Your task to perform on an android device: open app "DoorDash - Dasher" (install if not already installed), go to login, and select forgot password Image 0: 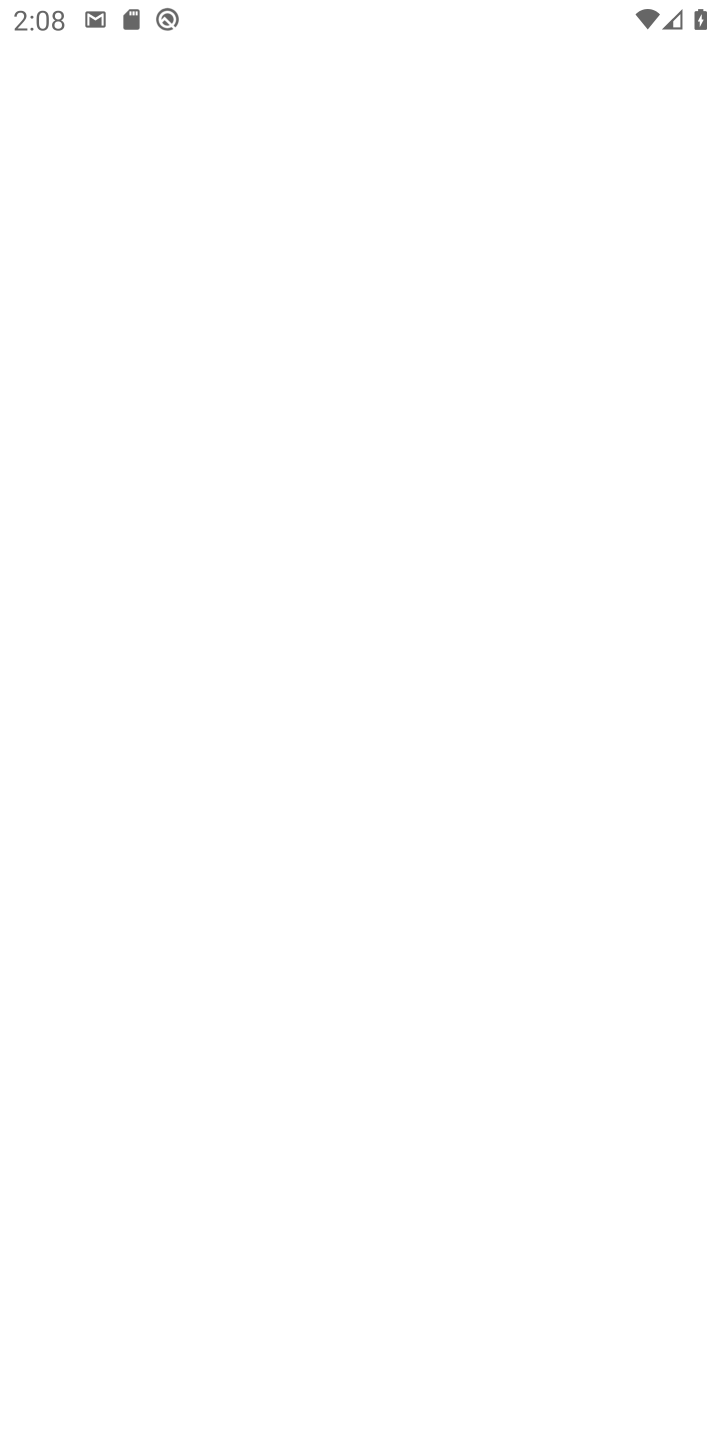
Step 0: press home button
Your task to perform on an android device: open app "DoorDash - Dasher" (install if not already installed), go to login, and select forgot password Image 1: 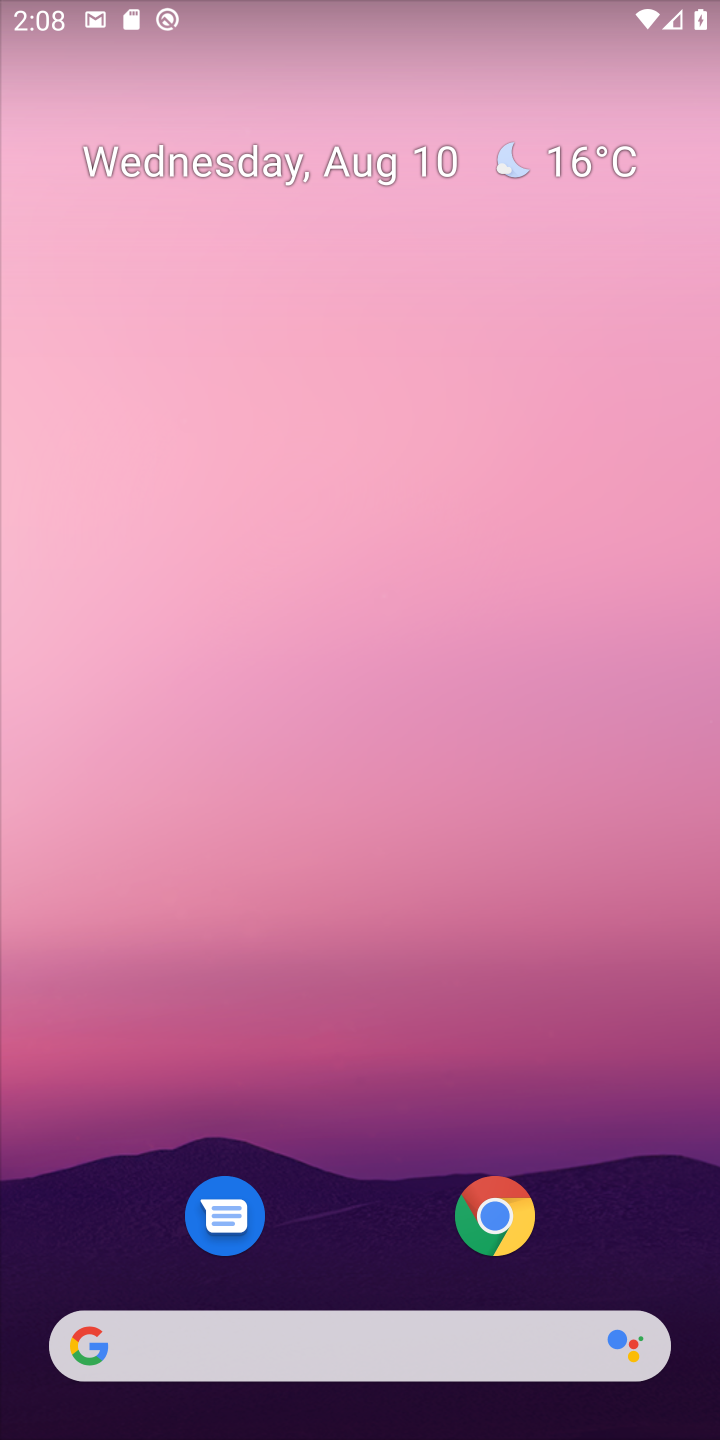
Step 1: drag from (363, 1289) to (386, 45)
Your task to perform on an android device: open app "DoorDash - Dasher" (install if not already installed), go to login, and select forgot password Image 2: 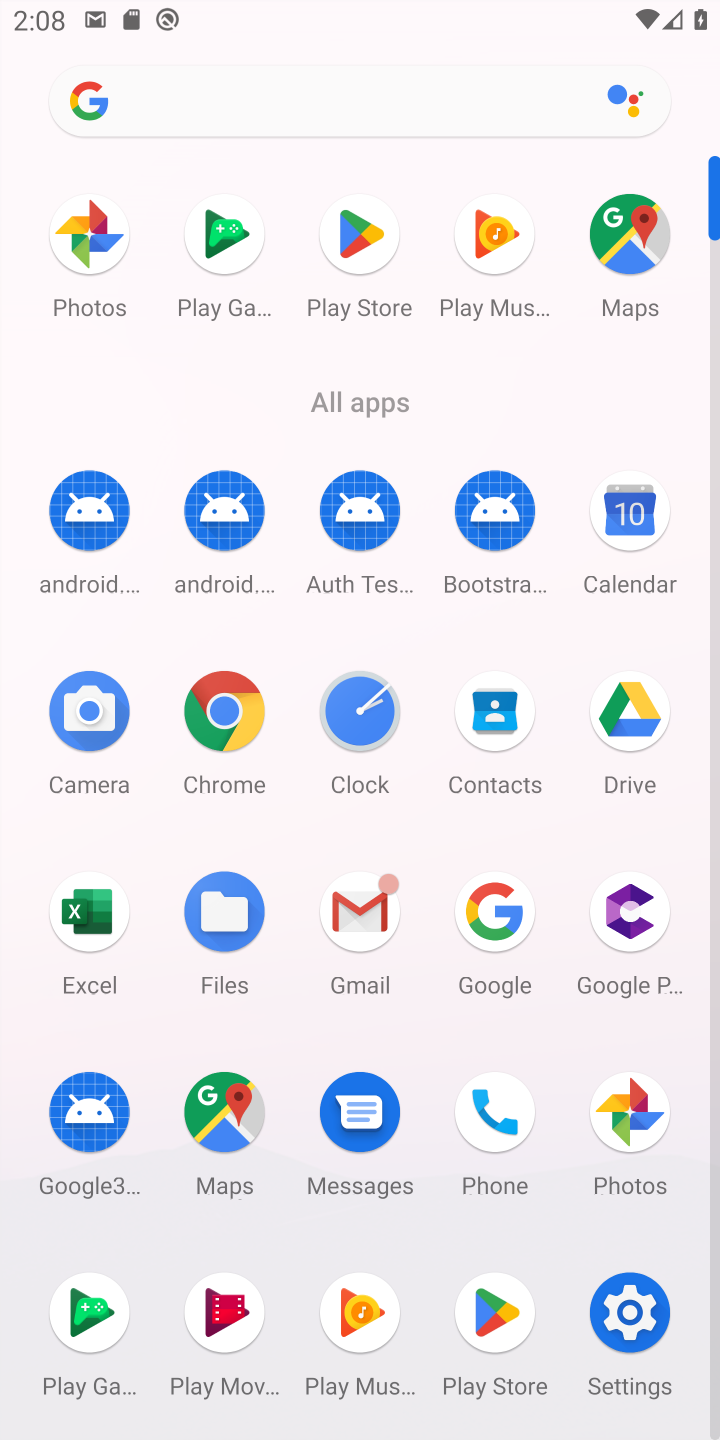
Step 2: click (473, 1329)
Your task to perform on an android device: open app "DoorDash - Dasher" (install if not already installed), go to login, and select forgot password Image 3: 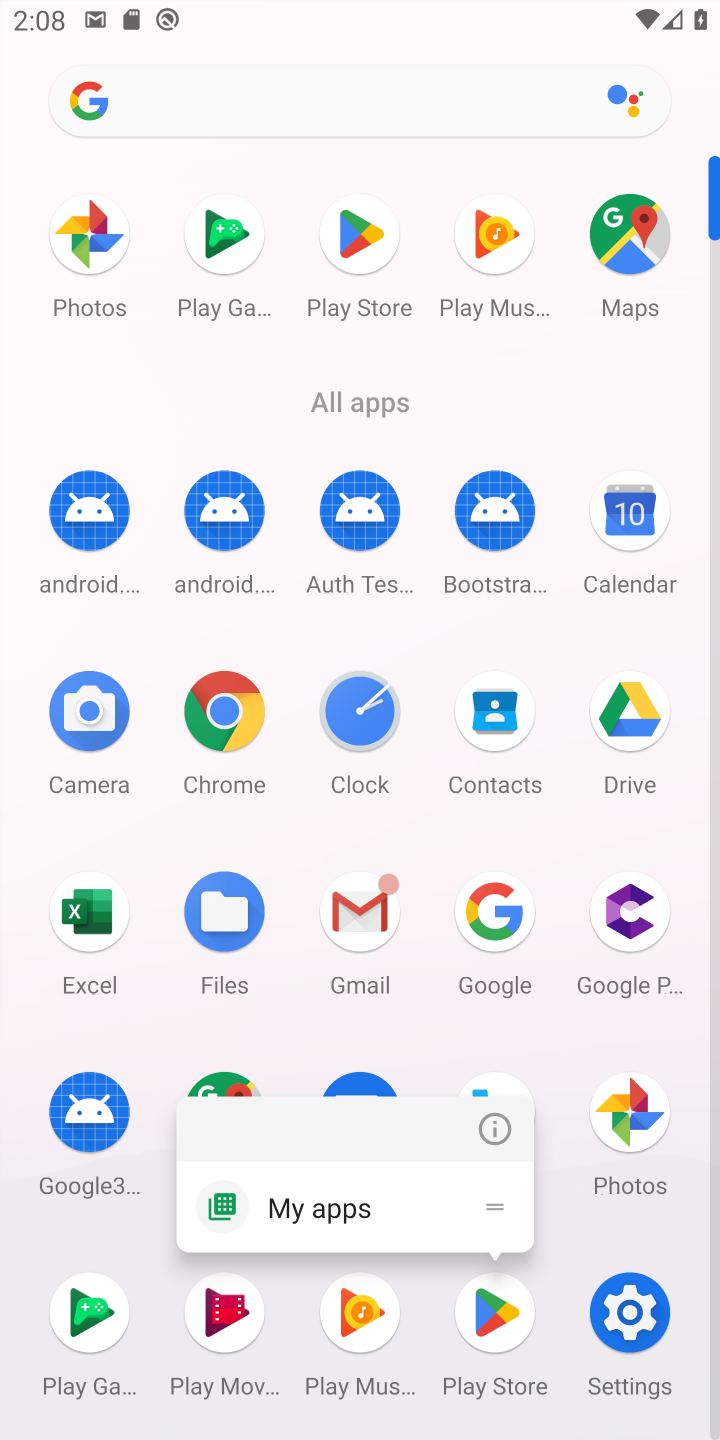
Step 3: click (508, 1348)
Your task to perform on an android device: open app "DoorDash - Dasher" (install if not already installed), go to login, and select forgot password Image 4: 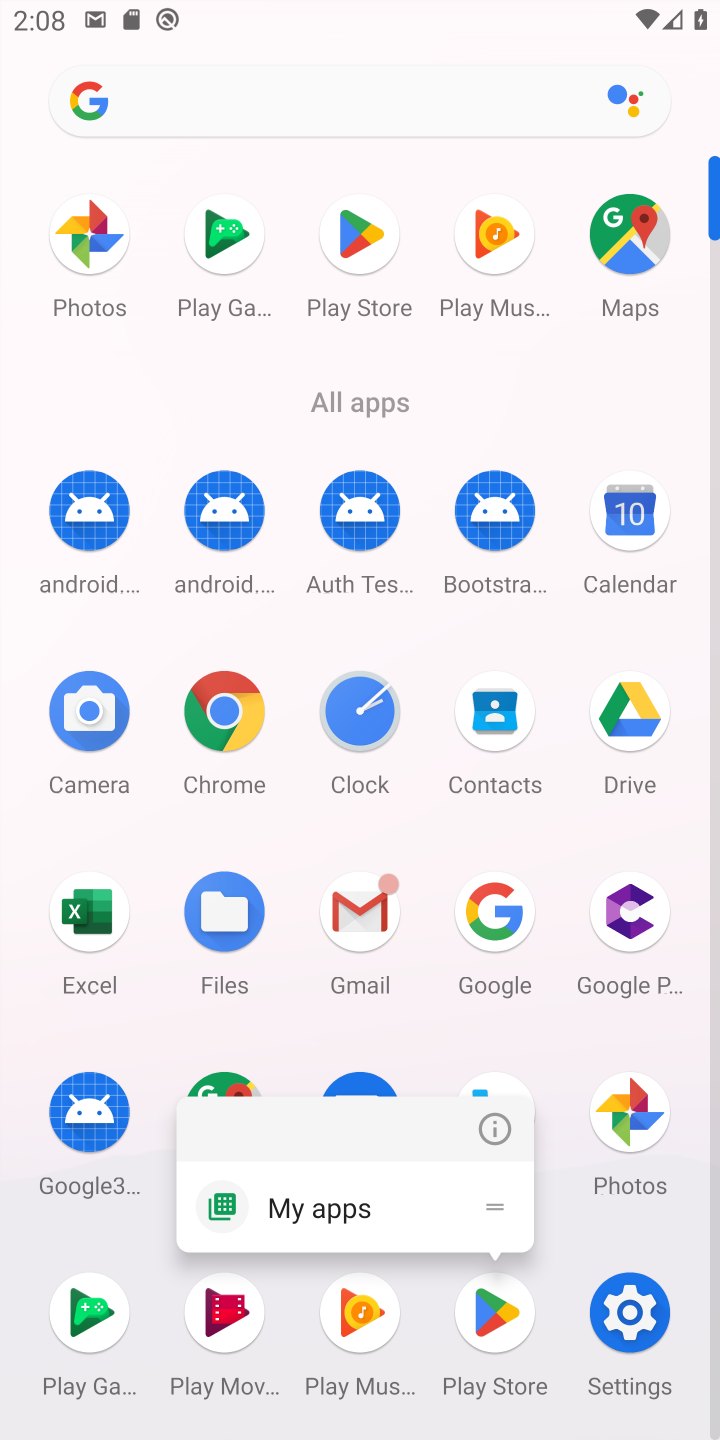
Step 4: click (446, 1321)
Your task to perform on an android device: open app "DoorDash - Dasher" (install if not already installed), go to login, and select forgot password Image 5: 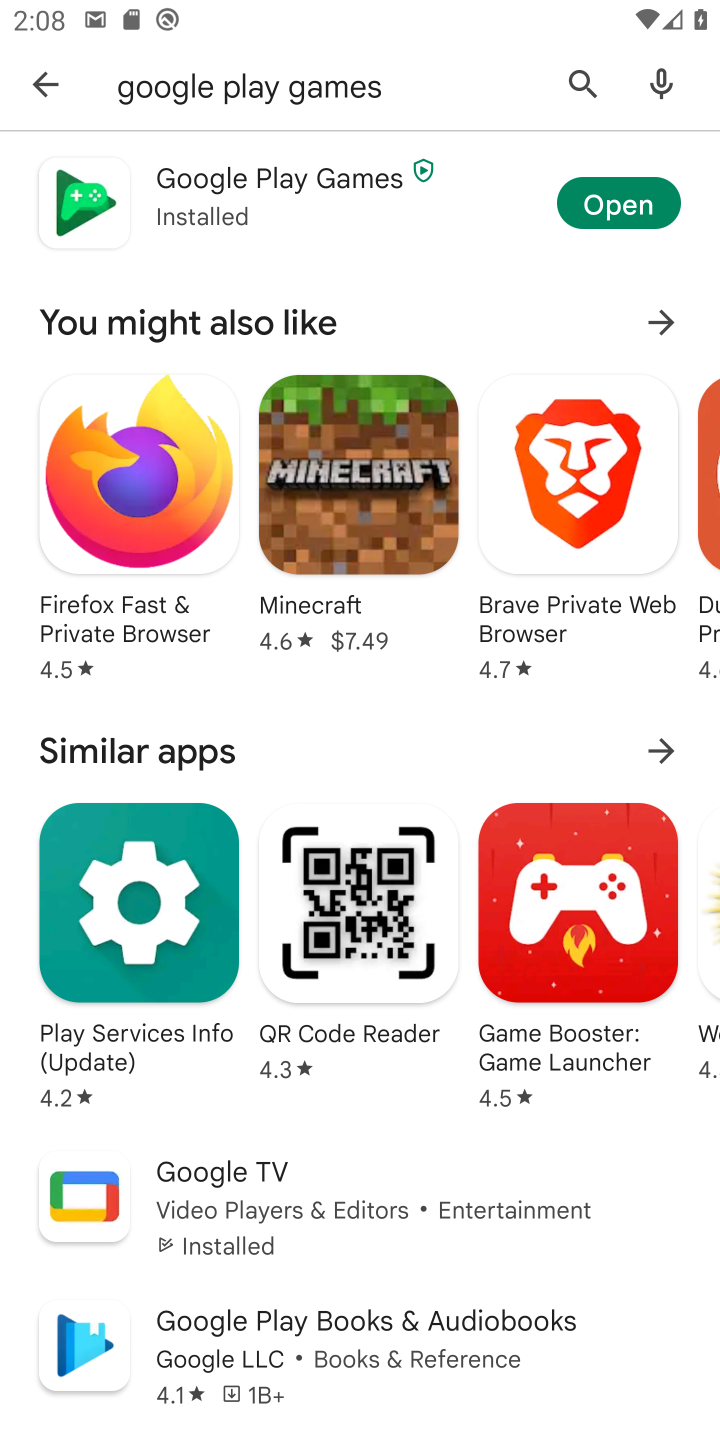
Step 5: click (36, 93)
Your task to perform on an android device: open app "DoorDash - Dasher" (install if not already installed), go to login, and select forgot password Image 6: 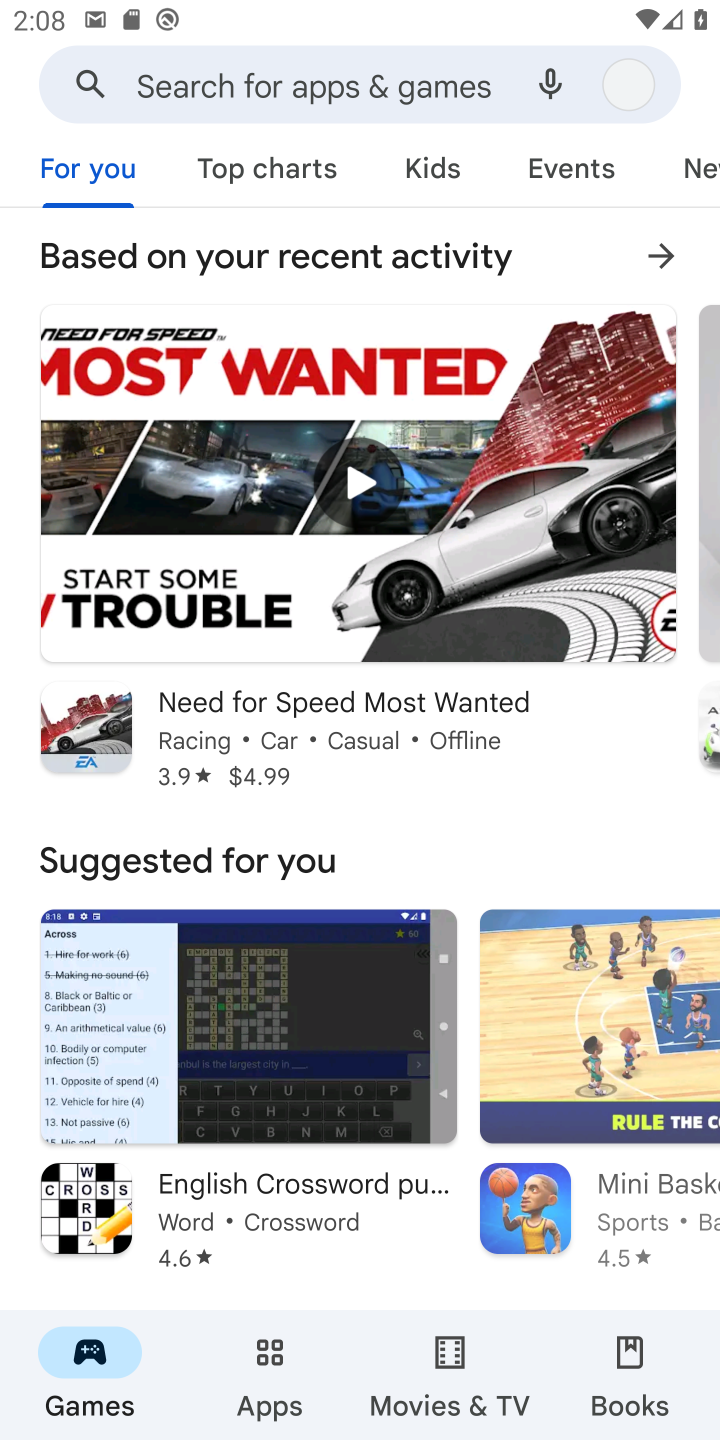
Step 6: click (267, 84)
Your task to perform on an android device: open app "DoorDash - Dasher" (install if not already installed), go to login, and select forgot password Image 7: 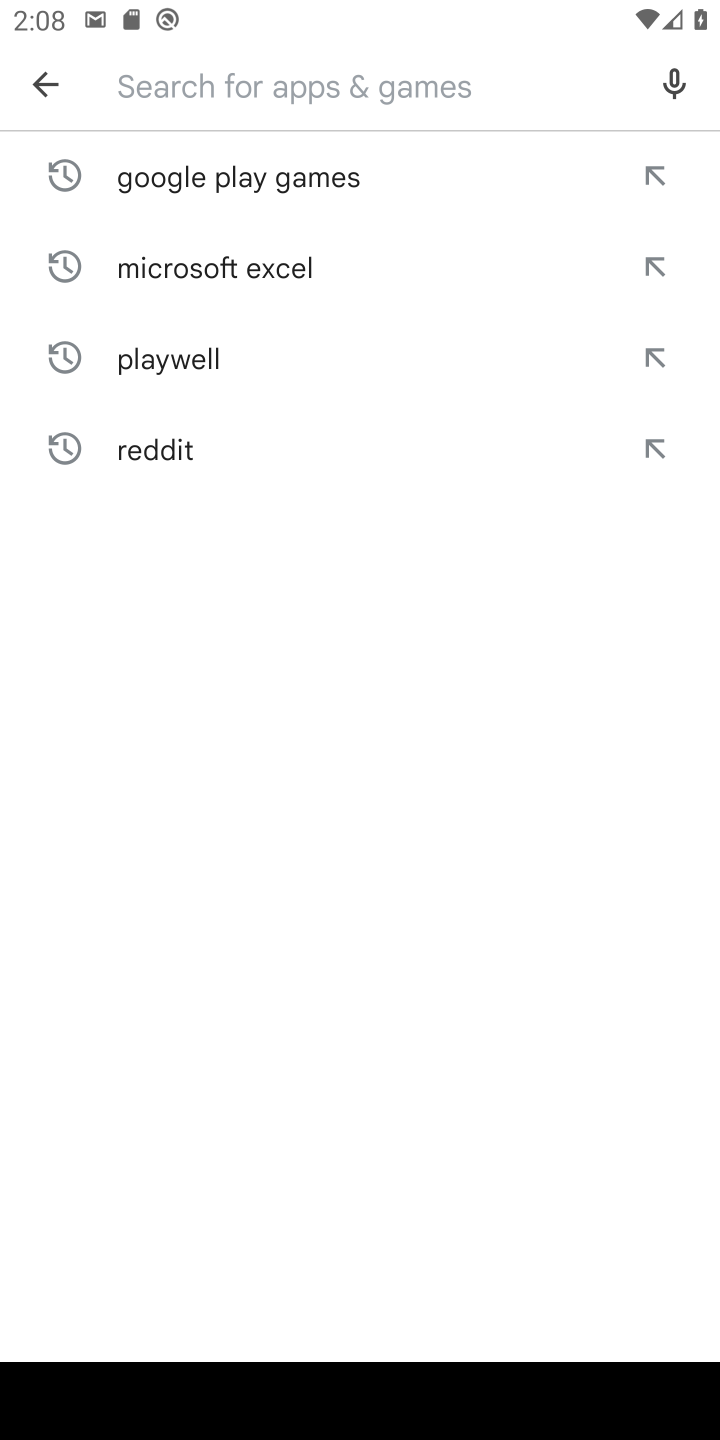
Step 7: drag from (396, 1413) to (578, 1365)
Your task to perform on an android device: open app "DoorDash - Dasher" (install if not already installed), go to login, and select forgot password Image 8: 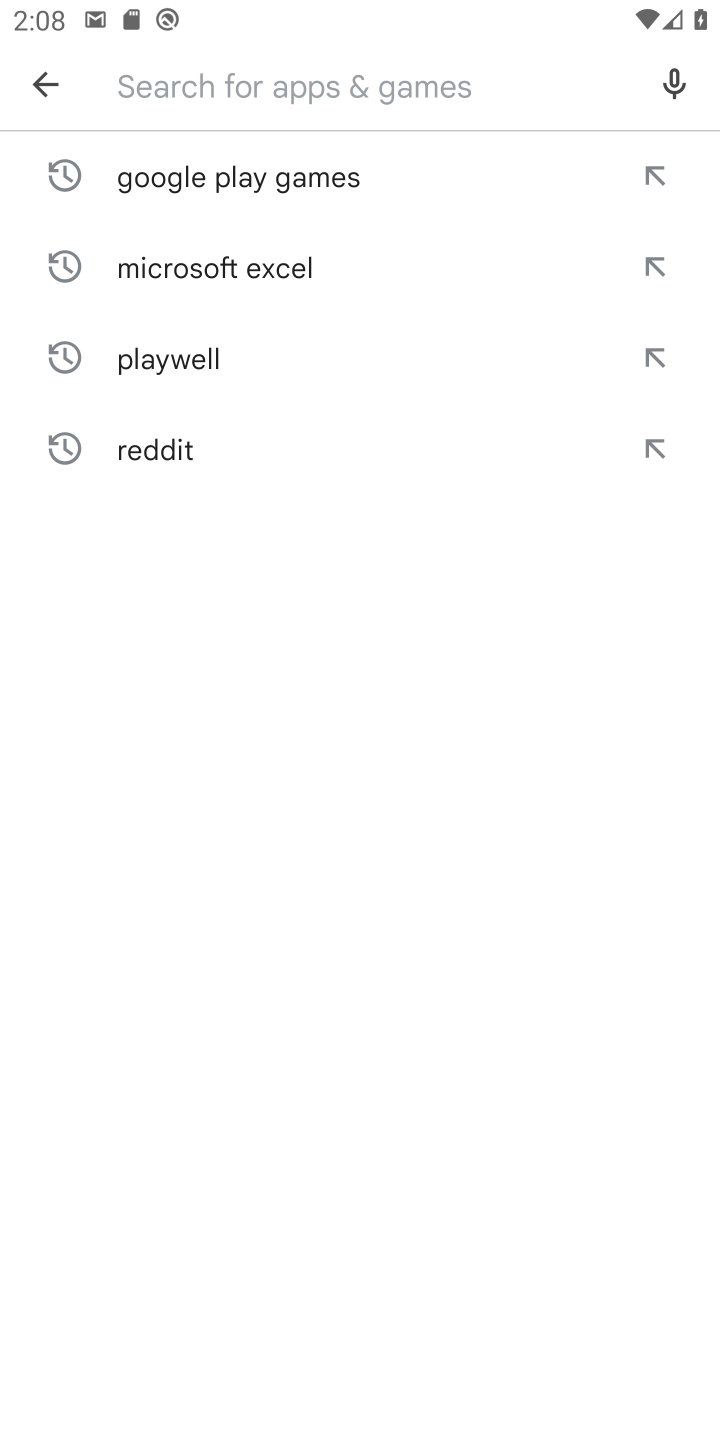
Step 8: type "DoorDash - Dashe"
Your task to perform on an android device: open app "DoorDash - Dasher" (install if not already installed), go to login, and select forgot password Image 9: 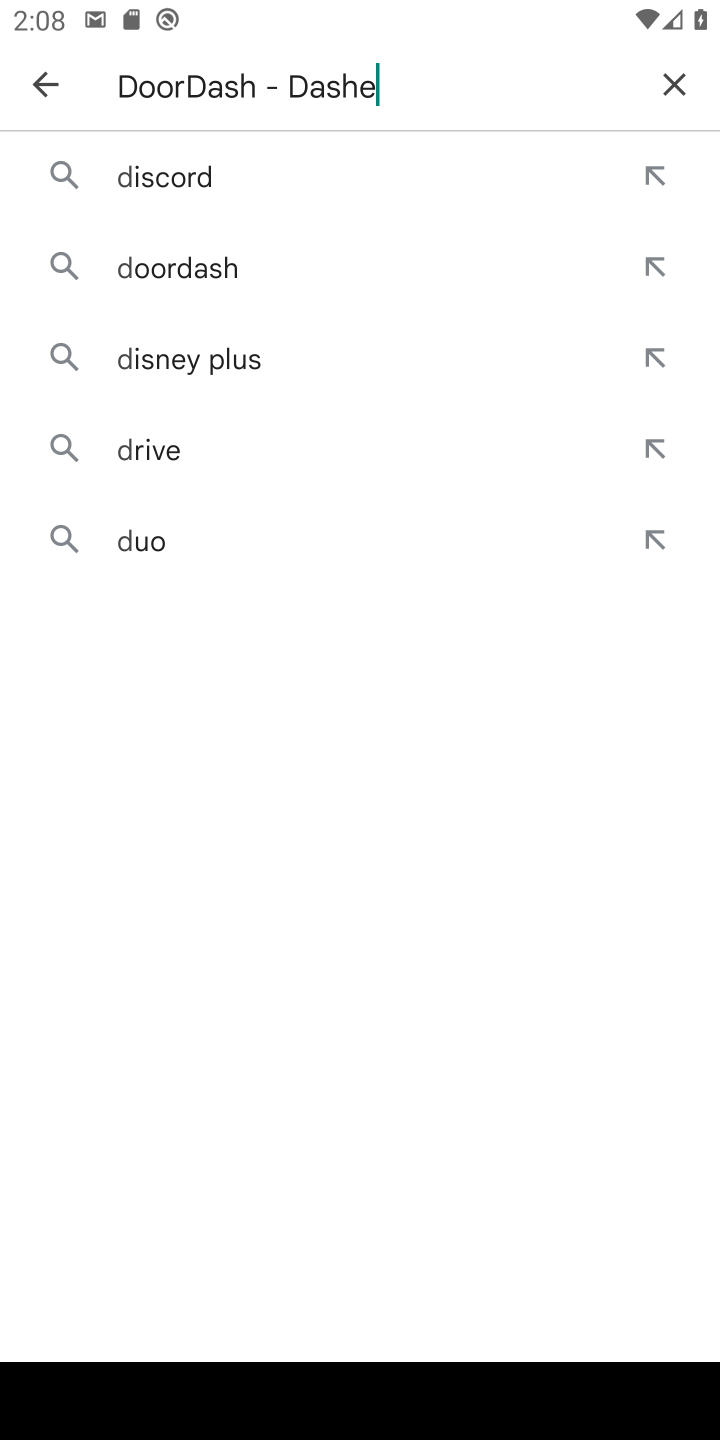
Step 9: type ""
Your task to perform on an android device: open app "DoorDash - Dasher" (install if not already installed), go to login, and select forgot password Image 10: 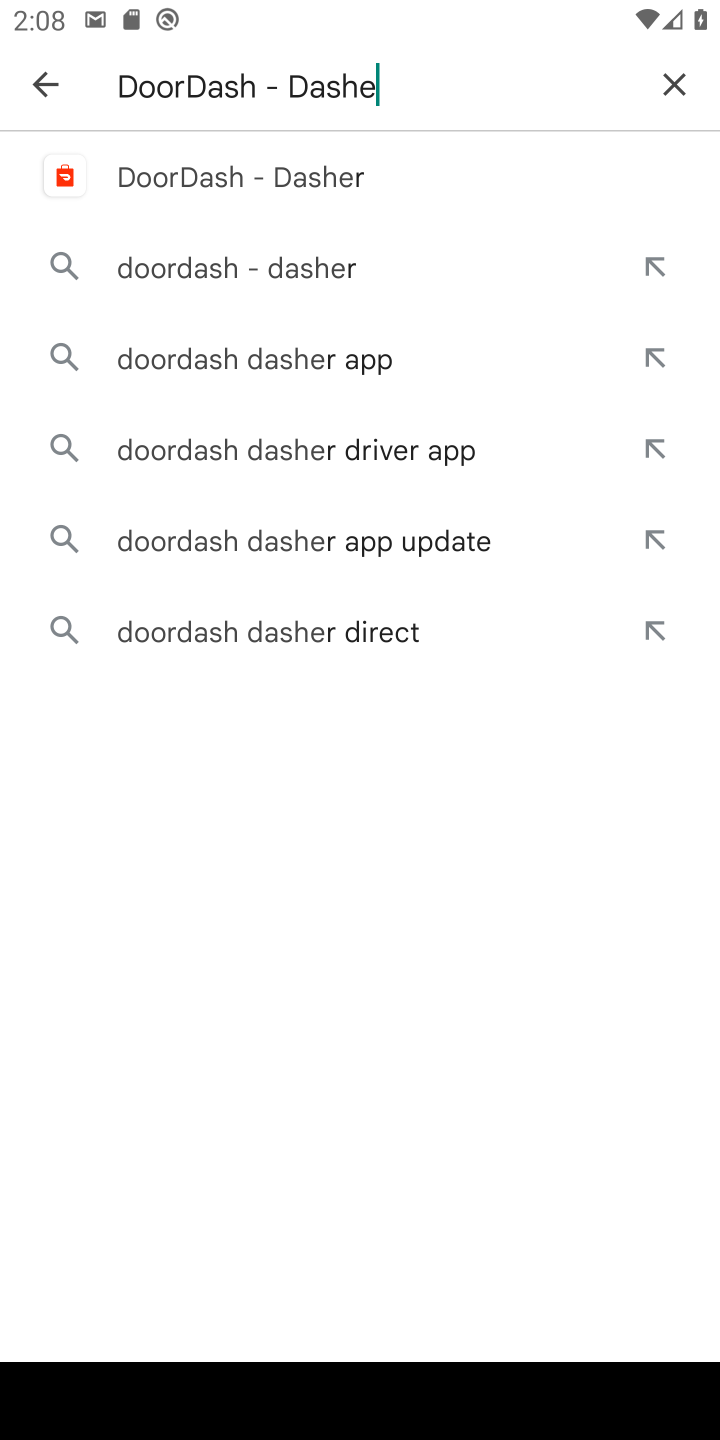
Step 10: drag from (154, 91) to (156, 170)
Your task to perform on an android device: open app "DoorDash - Dasher" (install if not already installed), go to login, and select forgot password Image 11: 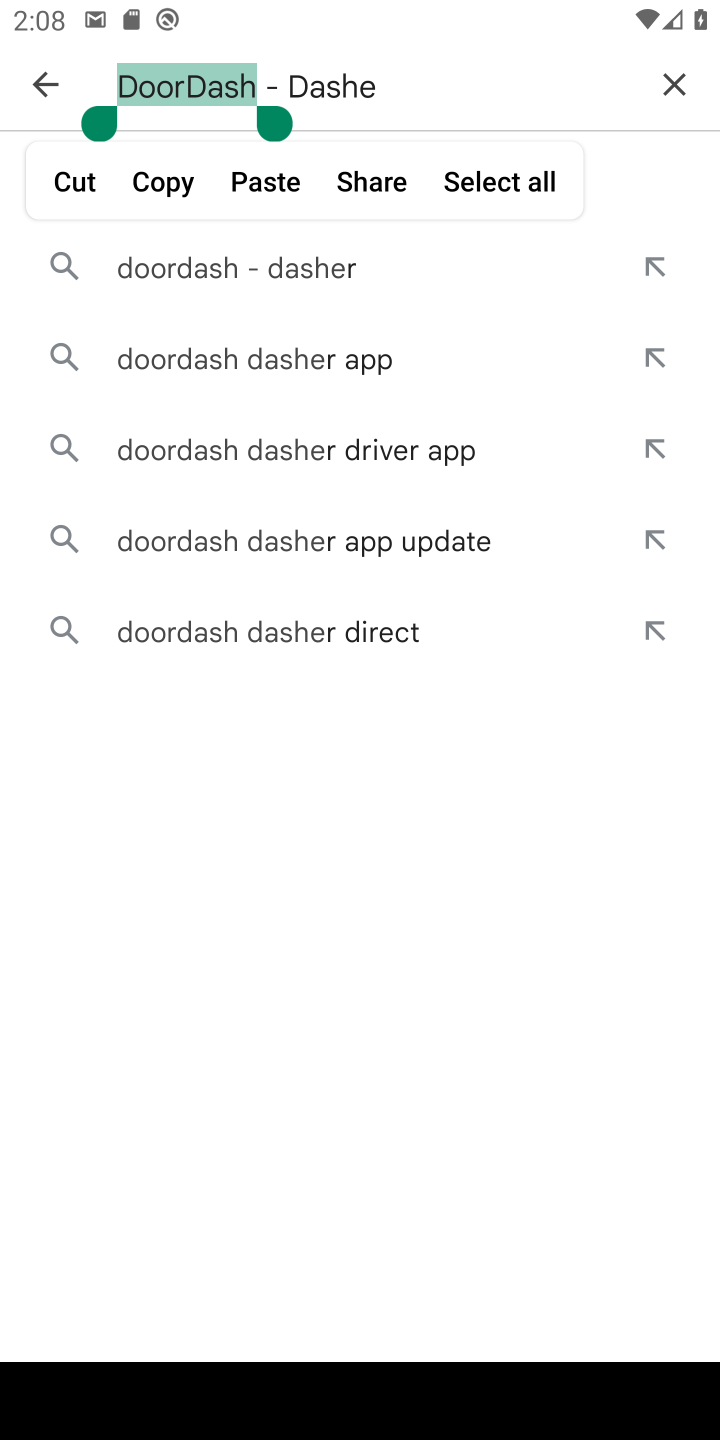
Step 11: click (239, 177)
Your task to perform on an android device: open app "DoorDash - Dasher" (install if not already installed), go to login, and select forgot password Image 12: 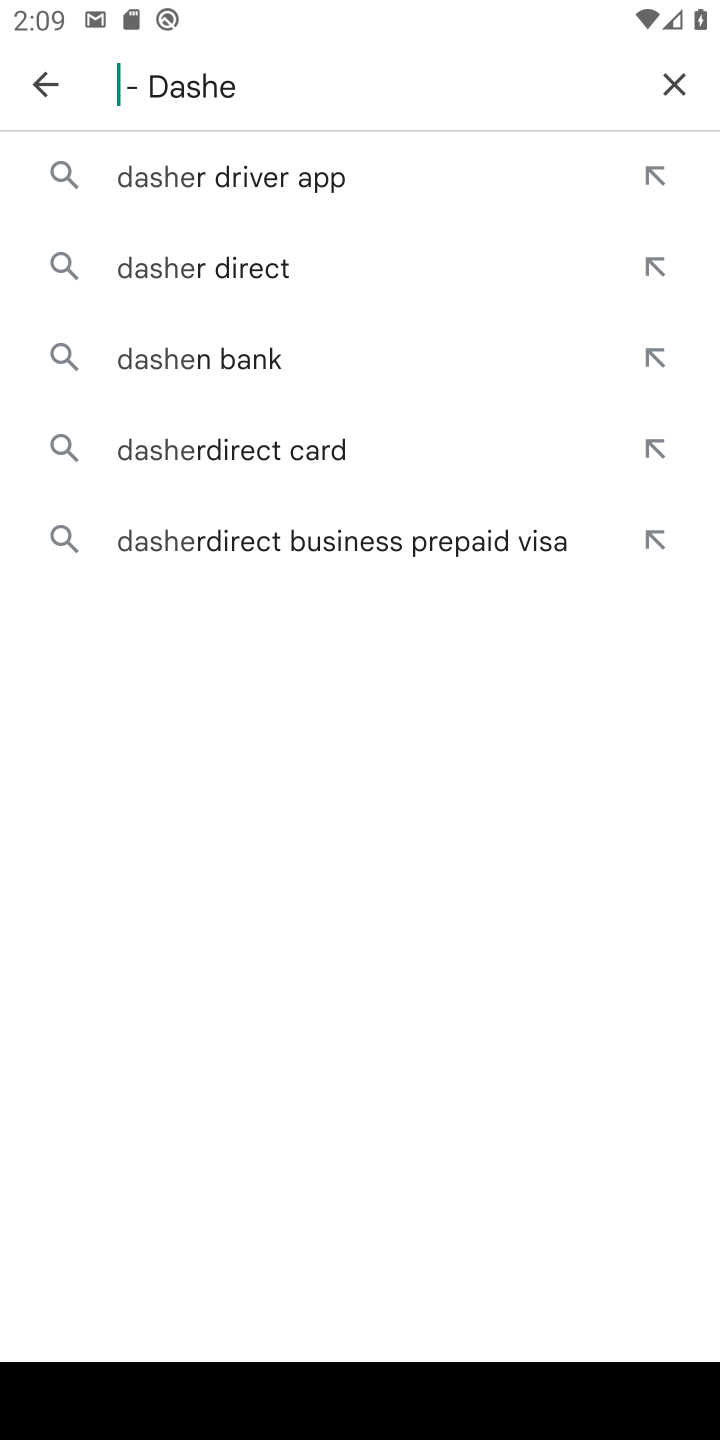
Step 12: click (219, 186)
Your task to perform on an android device: open app "DoorDash - Dasher" (install if not already installed), go to login, and select forgot password Image 13: 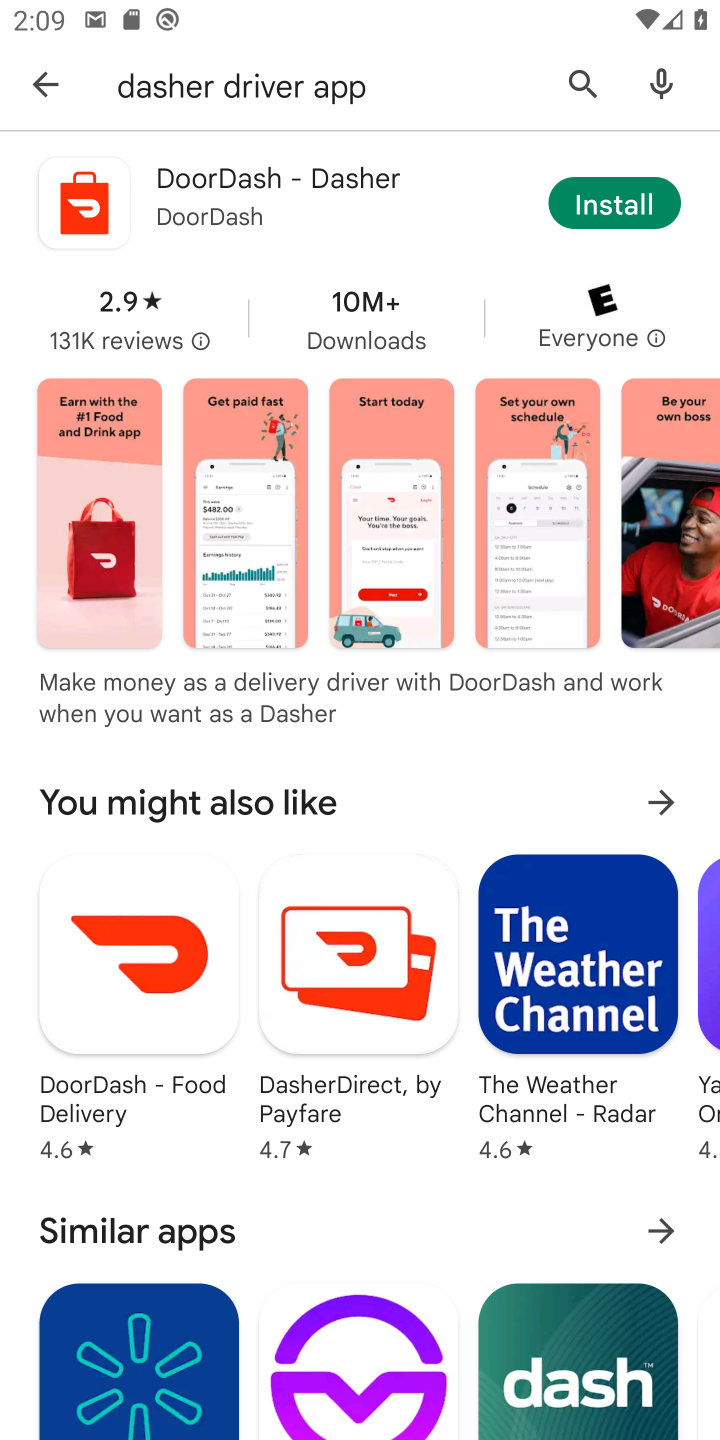
Step 13: click (629, 191)
Your task to perform on an android device: open app "DoorDash - Dasher" (install if not already installed), go to login, and select forgot password Image 14: 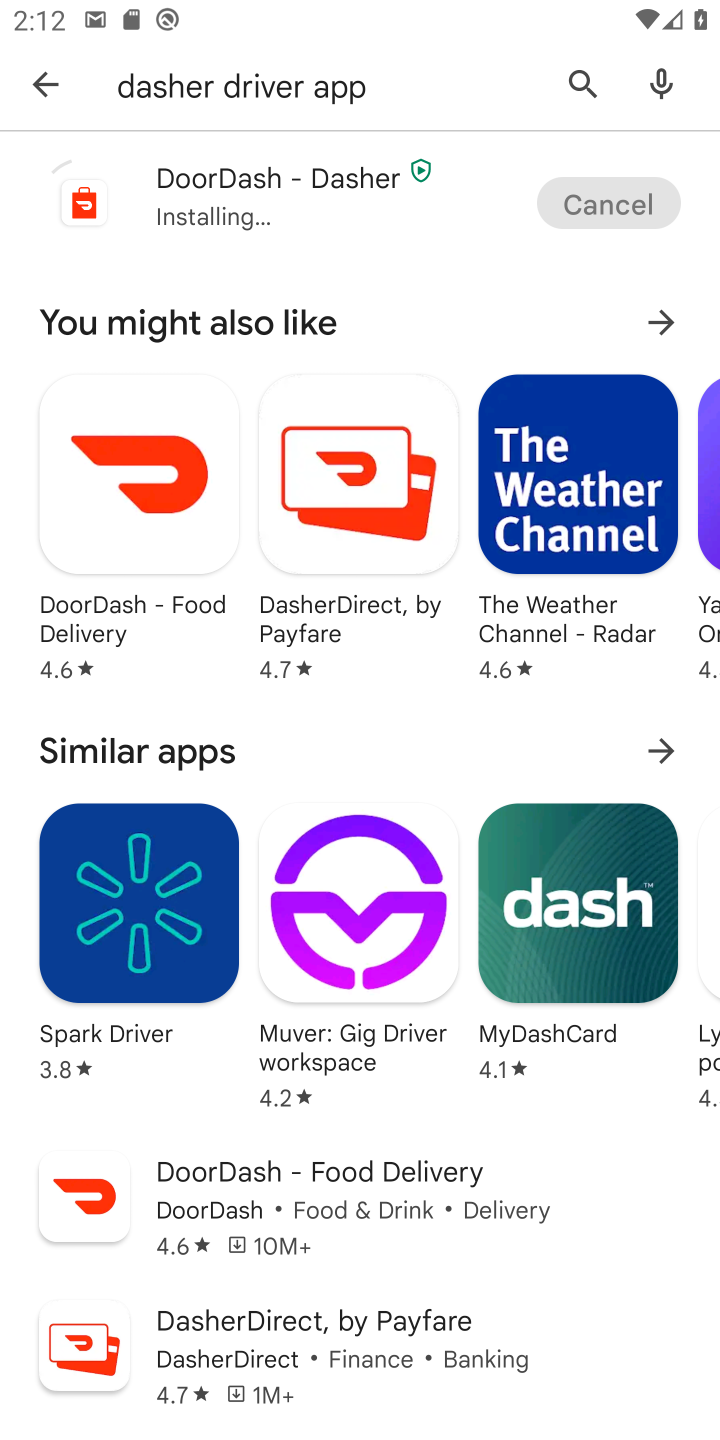
Step 14: click (306, 170)
Your task to perform on an android device: open app "DoorDash - Dasher" (install if not already installed), go to login, and select forgot password Image 15: 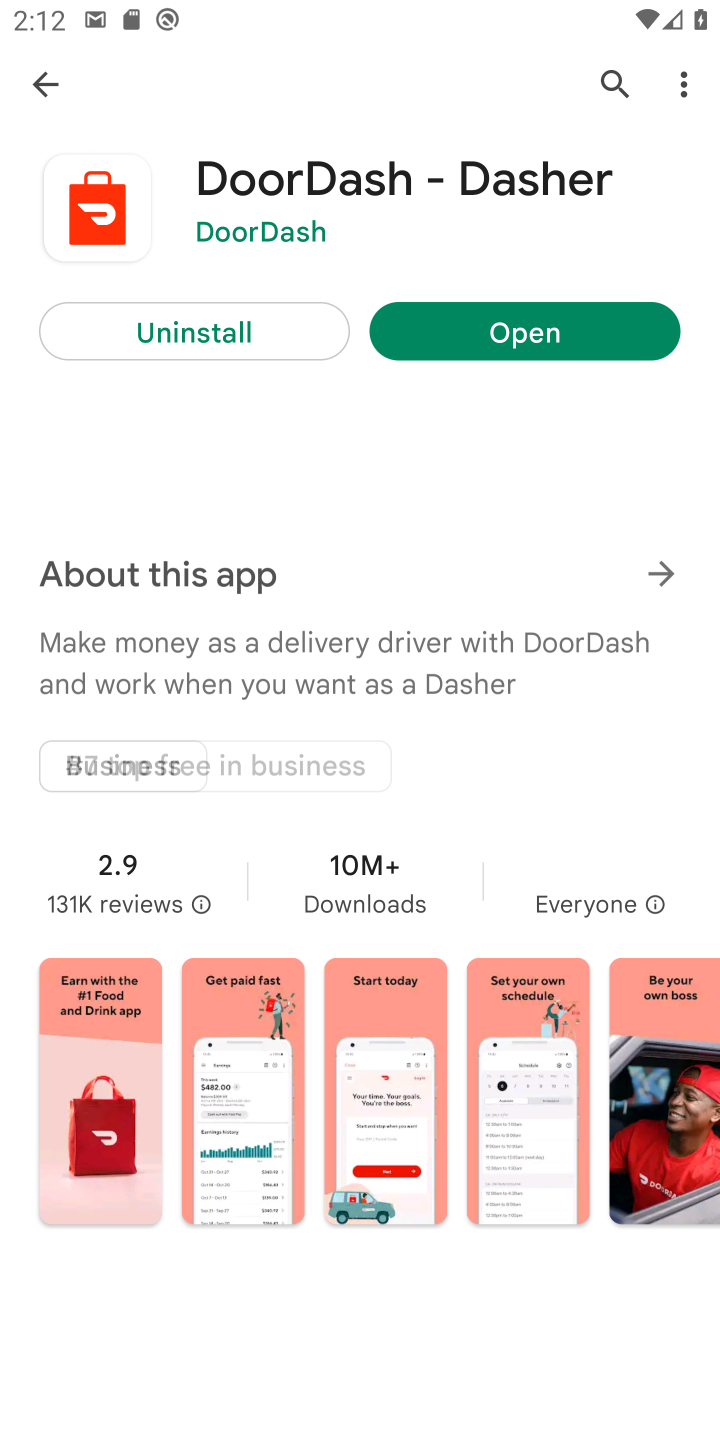
Step 15: click (511, 340)
Your task to perform on an android device: open app "DoorDash - Dasher" (install if not already installed), go to login, and select forgot password Image 16: 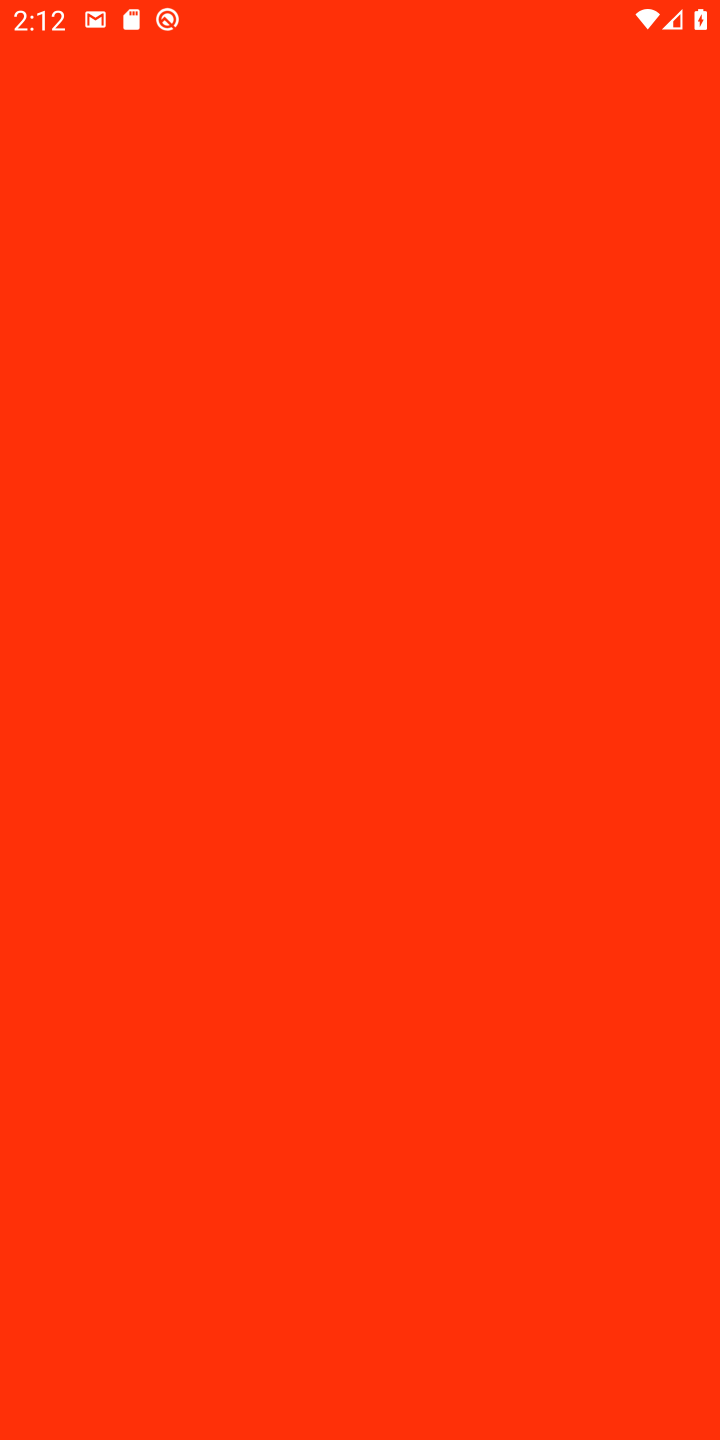
Step 16: task complete